Your task to perform on an android device: Open Chrome and go to the settings page Image 0: 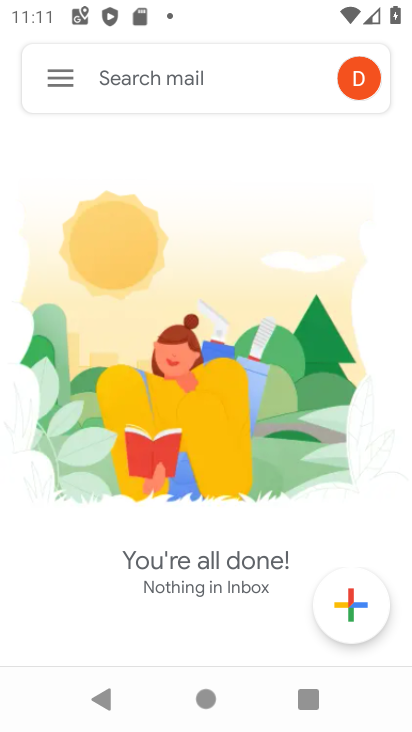
Step 0: press home button
Your task to perform on an android device: Open Chrome and go to the settings page Image 1: 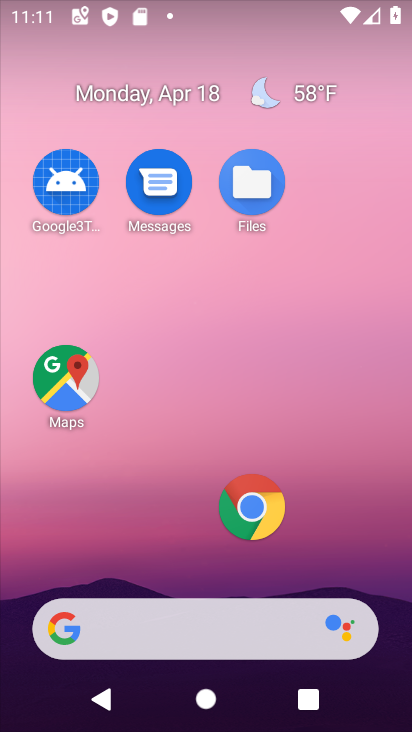
Step 1: drag from (215, 586) to (234, 19)
Your task to perform on an android device: Open Chrome and go to the settings page Image 2: 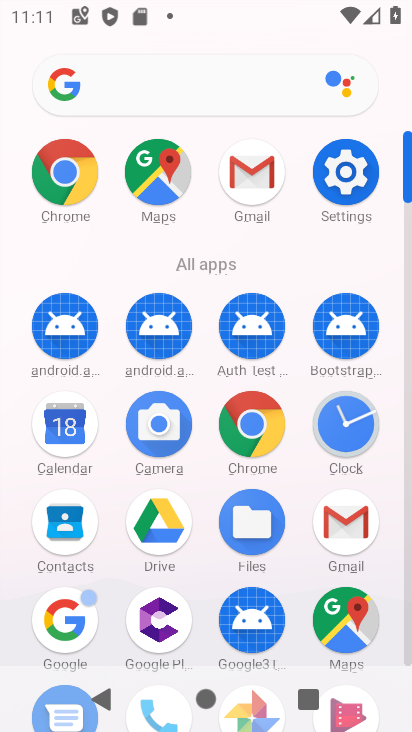
Step 2: click (239, 427)
Your task to perform on an android device: Open Chrome and go to the settings page Image 3: 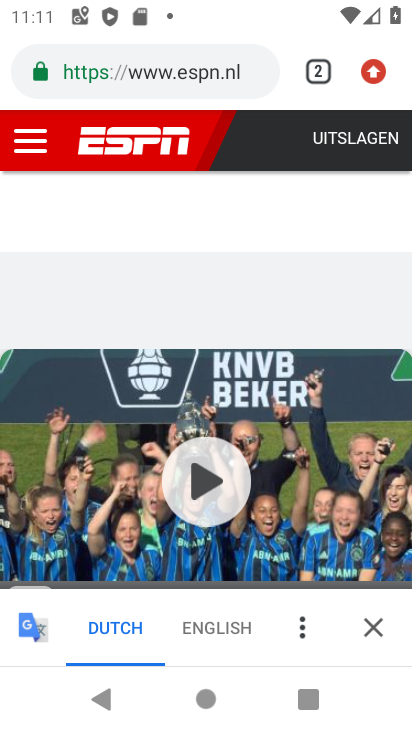
Step 3: task complete